Your task to perform on an android device: open app "ZOOM Cloud Meetings" (install if not already installed) Image 0: 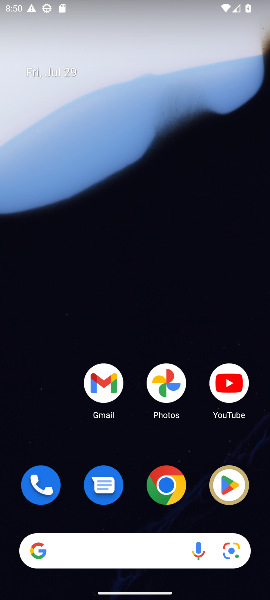
Step 0: drag from (130, 538) to (90, 2)
Your task to perform on an android device: open app "ZOOM Cloud Meetings" (install if not already installed) Image 1: 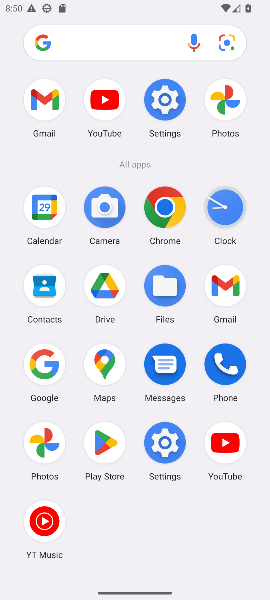
Step 1: click (113, 443)
Your task to perform on an android device: open app "ZOOM Cloud Meetings" (install if not already installed) Image 2: 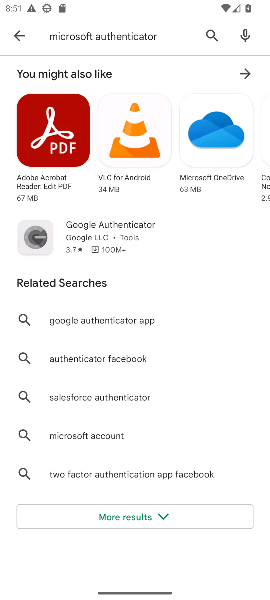
Step 2: click (208, 38)
Your task to perform on an android device: open app "ZOOM Cloud Meetings" (install if not already installed) Image 3: 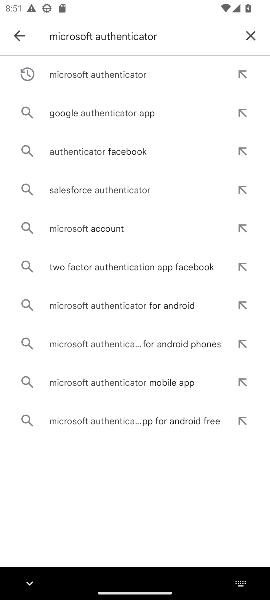
Step 3: click (250, 37)
Your task to perform on an android device: open app "ZOOM Cloud Meetings" (install if not already installed) Image 4: 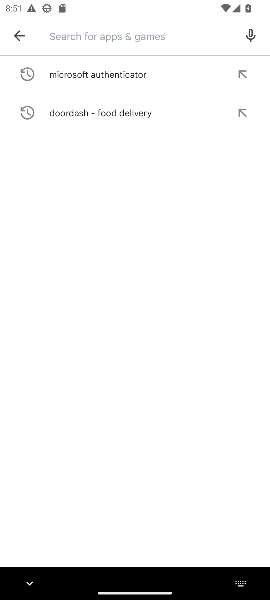
Step 4: type "ZOOM Cloud Meetings"
Your task to perform on an android device: open app "ZOOM Cloud Meetings" (install if not already installed) Image 5: 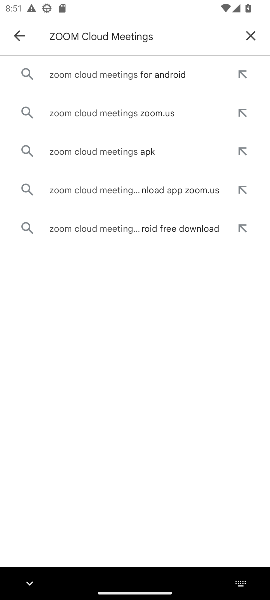
Step 5: click (135, 78)
Your task to perform on an android device: open app "ZOOM Cloud Meetings" (install if not already installed) Image 6: 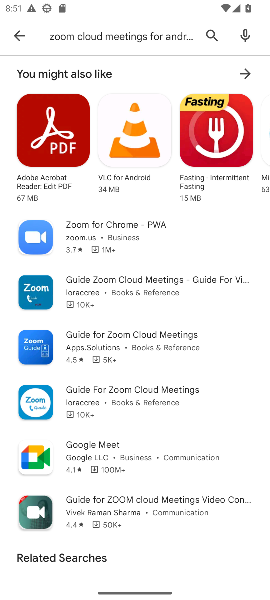
Step 6: click (103, 245)
Your task to perform on an android device: open app "ZOOM Cloud Meetings" (install if not already installed) Image 7: 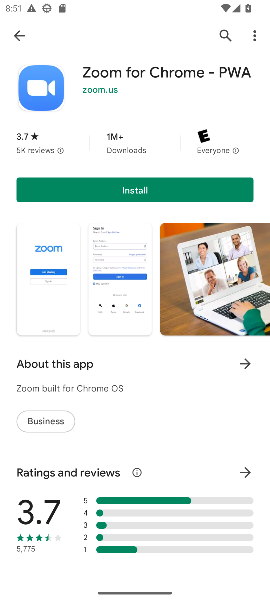
Step 7: click (147, 192)
Your task to perform on an android device: open app "ZOOM Cloud Meetings" (install if not already installed) Image 8: 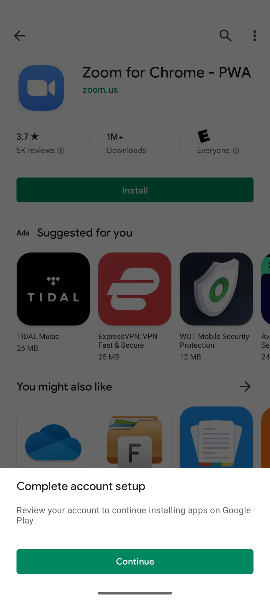
Step 8: click (160, 570)
Your task to perform on an android device: open app "ZOOM Cloud Meetings" (install if not already installed) Image 9: 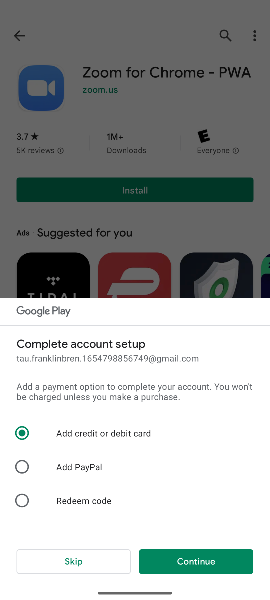
Step 9: click (62, 555)
Your task to perform on an android device: open app "ZOOM Cloud Meetings" (install if not already installed) Image 10: 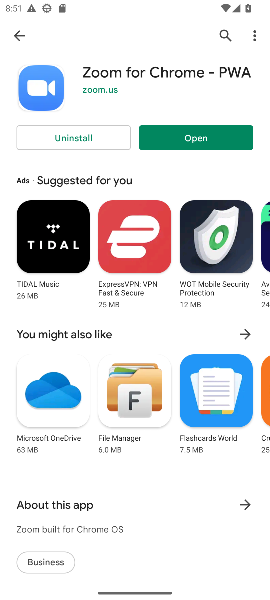
Step 10: click (177, 145)
Your task to perform on an android device: open app "ZOOM Cloud Meetings" (install if not already installed) Image 11: 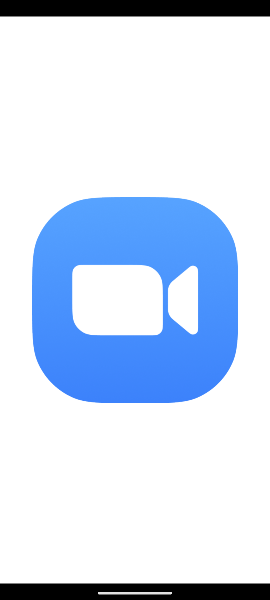
Step 11: task complete